Your task to perform on an android device: Open the calendar app, open the side menu, and click the "Day" option Image 0: 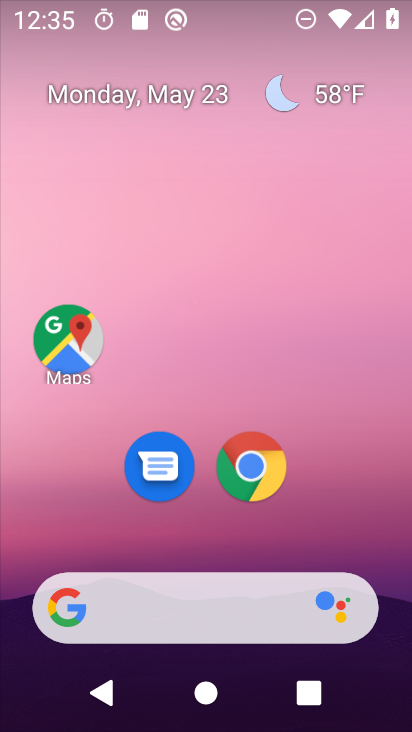
Step 0: drag from (201, 532) to (209, 151)
Your task to perform on an android device: Open the calendar app, open the side menu, and click the "Day" option Image 1: 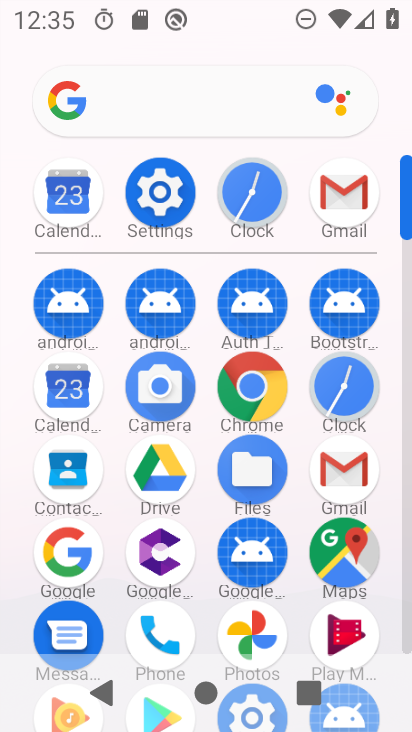
Step 1: click (66, 385)
Your task to perform on an android device: Open the calendar app, open the side menu, and click the "Day" option Image 2: 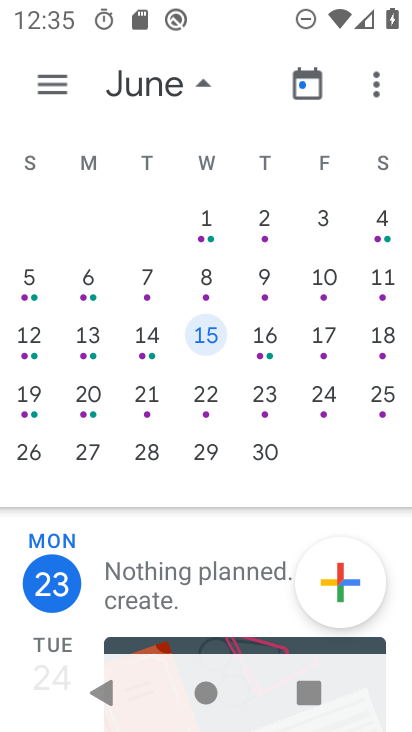
Step 2: click (43, 98)
Your task to perform on an android device: Open the calendar app, open the side menu, and click the "Day" option Image 3: 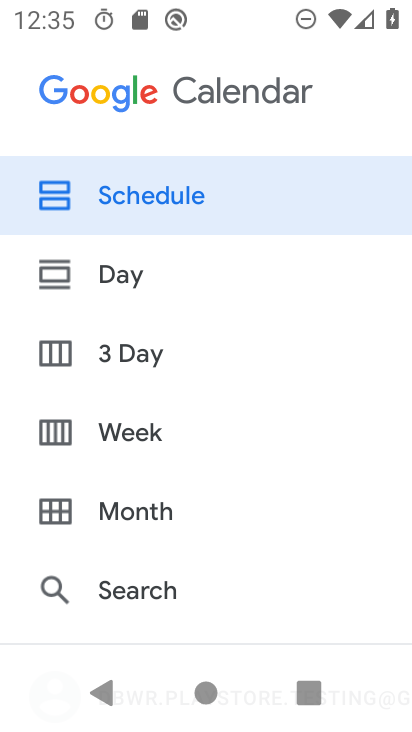
Step 3: press back button
Your task to perform on an android device: Open the calendar app, open the side menu, and click the "Day" option Image 4: 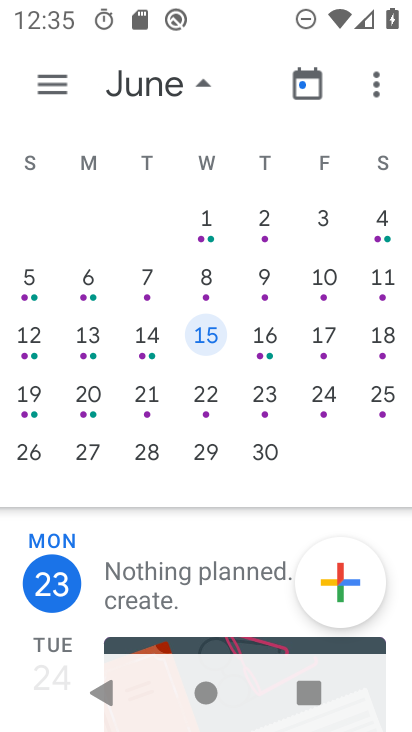
Step 4: drag from (284, 486) to (406, 445)
Your task to perform on an android device: Open the calendar app, open the side menu, and click the "Day" option Image 5: 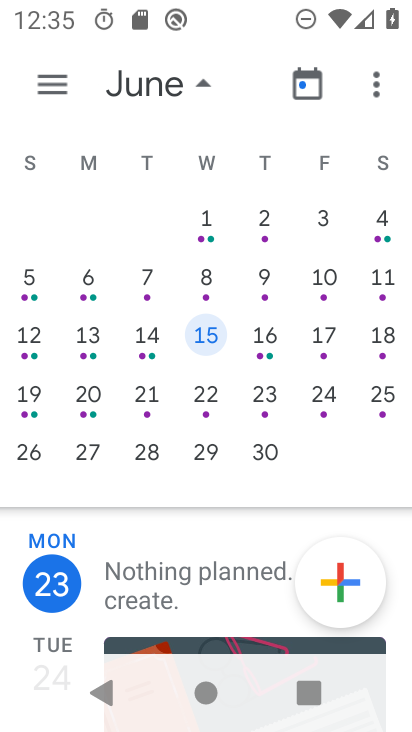
Step 5: drag from (37, 470) to (385, 442)
Your task to perform on an android device: Open the calendar app, open the side menu, and click the "Day" option Image 6: 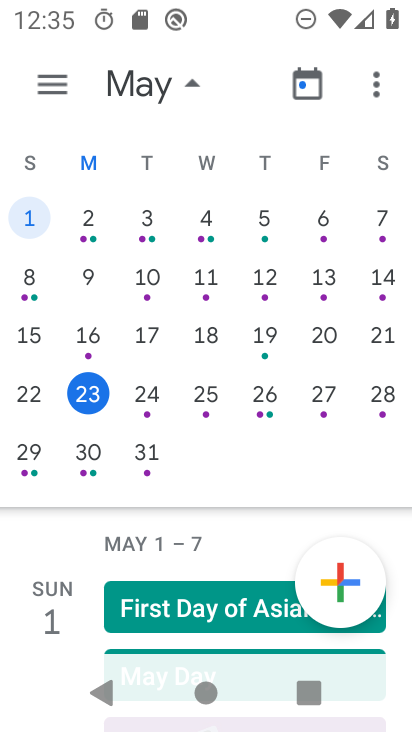
Step 6: click (97, 394)
Your task to perform on an android device: Open the calendar app, open the side menu, and click the "Day" option Image 7: 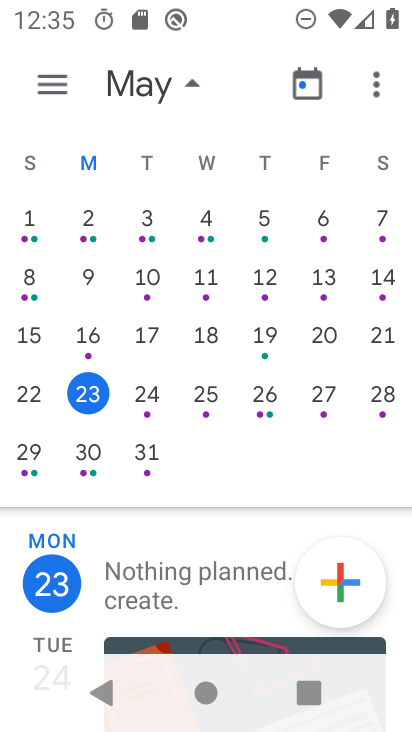
Step 7: click (51, 78)
Your task to perform on an android device: Open the calendar app, open the side menu, and click the "Day" option Image 8: 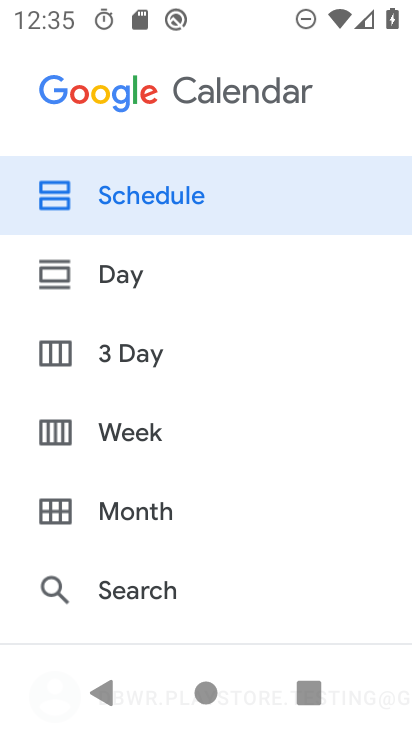
Step 8: click (108, 281)
Your task to perform on an android device: Open the calendar app, open the side menu, and click the "Day" option Image 9: 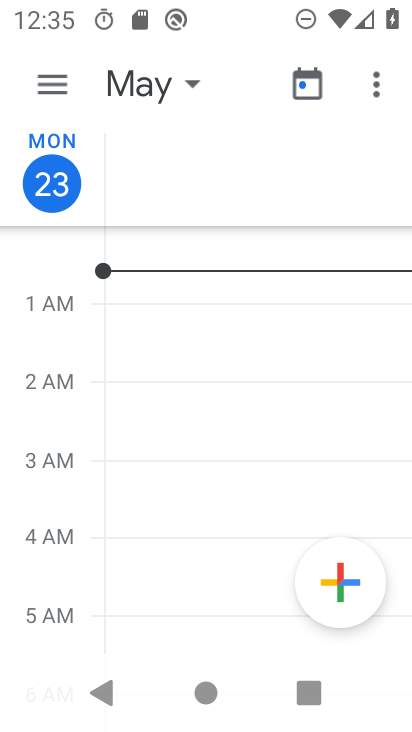
Step 9: task complete